Your task to perform on an android device: change the upload size in google photos Image 0: 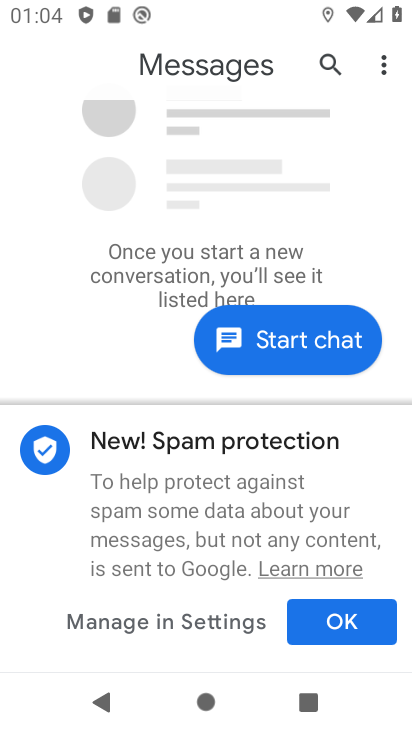
Step 0: press home button
Your task to perform on an android device: change the upload size in google photos Image 1: 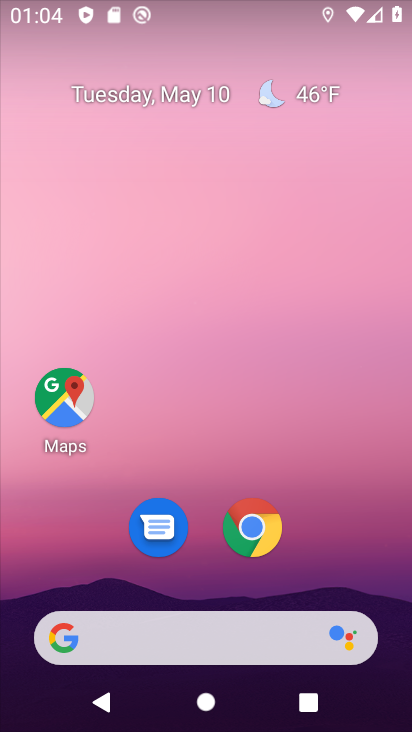
Step 1: drag from (328, 553) to (270, 188)
Your task to perform on an android device: change the upload size in google photos Image 2: 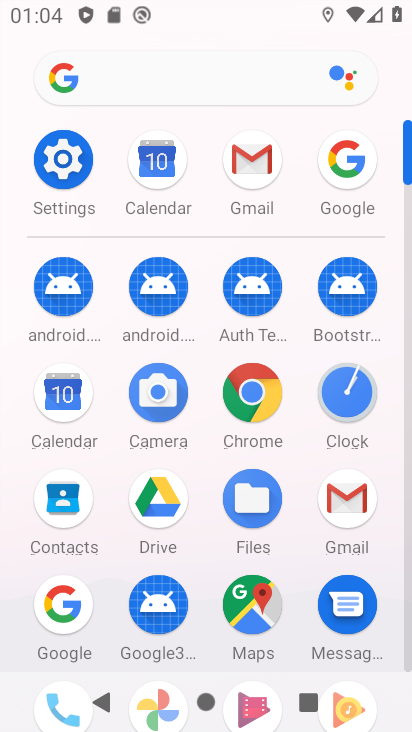
Step 2: drag from (205, 648) to (199, 428)
Your task to perform on an android device: change the upload size in google photos Image 3: 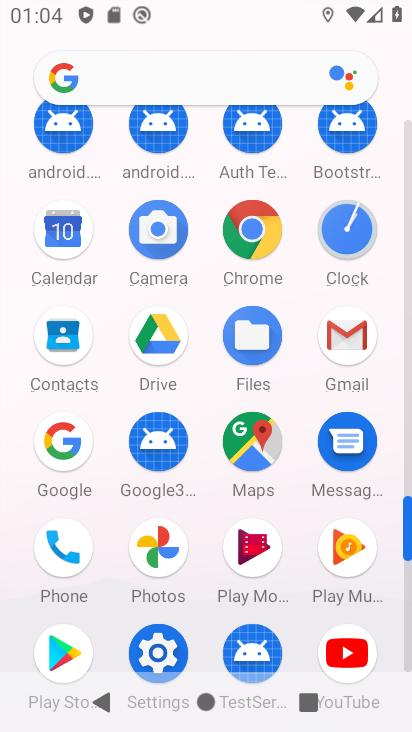
Step 3: click (170, 560)
Your task to perform on an android device: change the upload size in google photos Image 4: 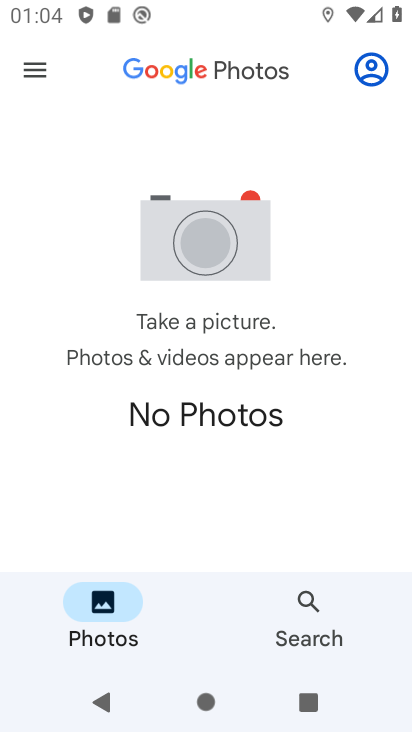
Step 4: click (29, 72)
Your task to perform on an android device: change the upload size in google photos Image 5: 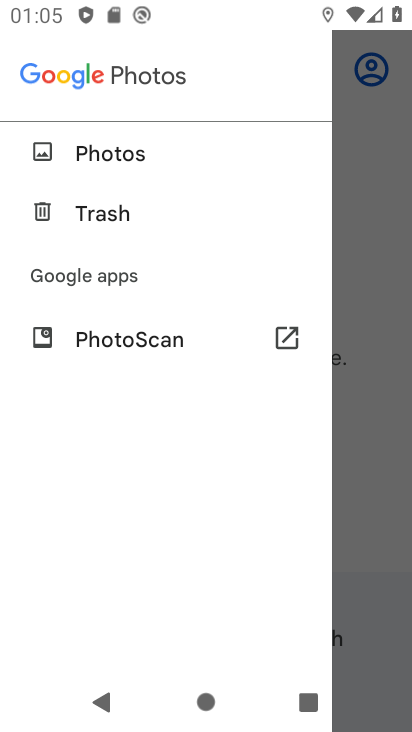
Step 5: click (348, 118)
Your task to perform on an android device: change the upload size in google photos Image 6: 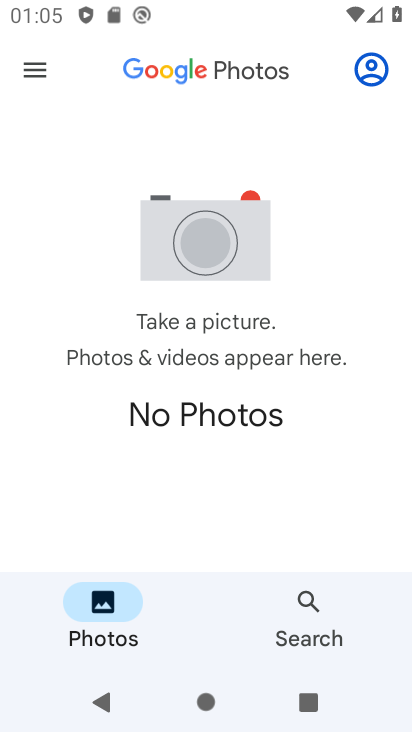
Step 6: click (370, 60)
Your task to perform on an android device: change the upload size in google photos Image 7: 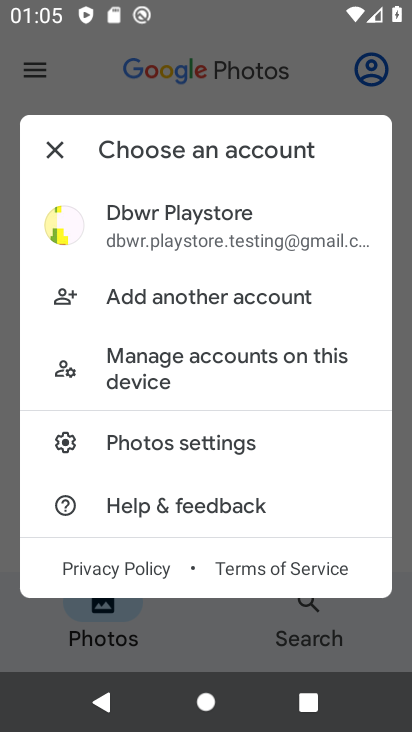
Step 7: click (164, 441)
Your task to perform on an android device: change the upload size in google photos Image 8: 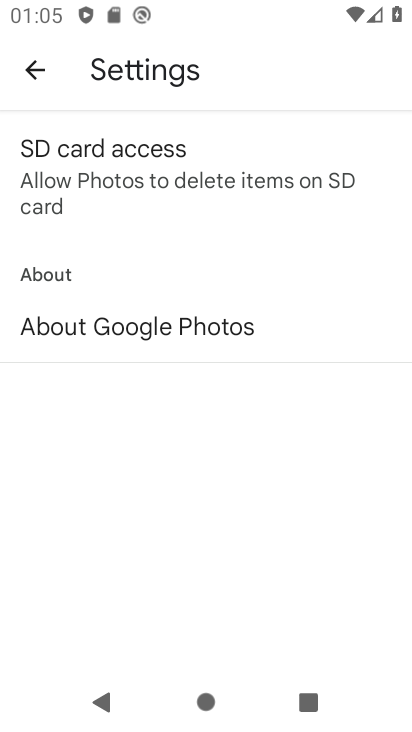
Step 8: task complete